Your task to perform on an android device: toggle data saver in the chrome app Image 0: 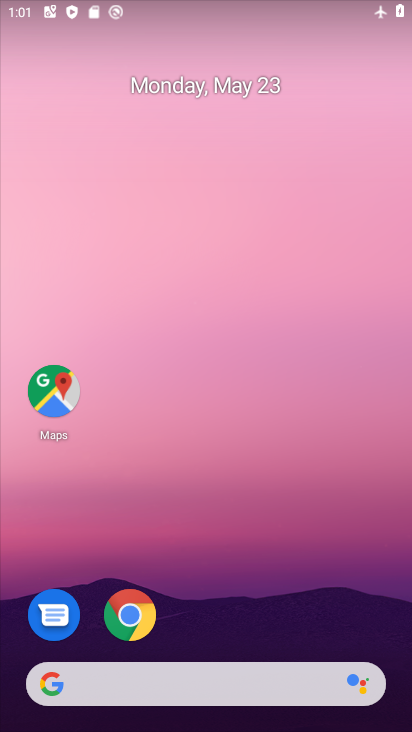
Step 0: click (126, 613)
Your task to perform on an android device: toggle data saver in the chrome app Image 1: 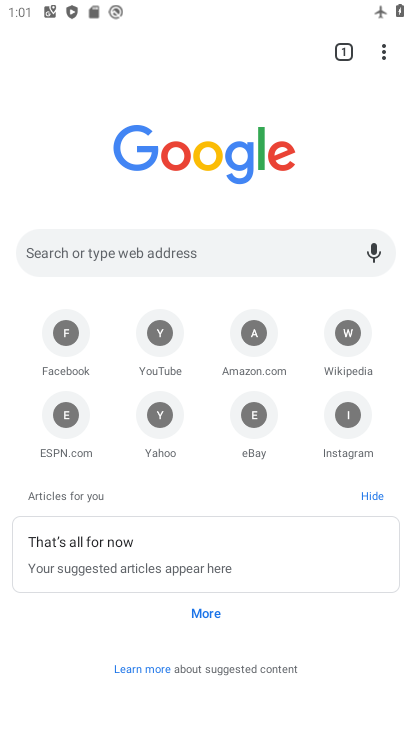
Step 1: click (383, 48)
Your task to perform on an android device: toggle data saver in the chrome app Image 2: 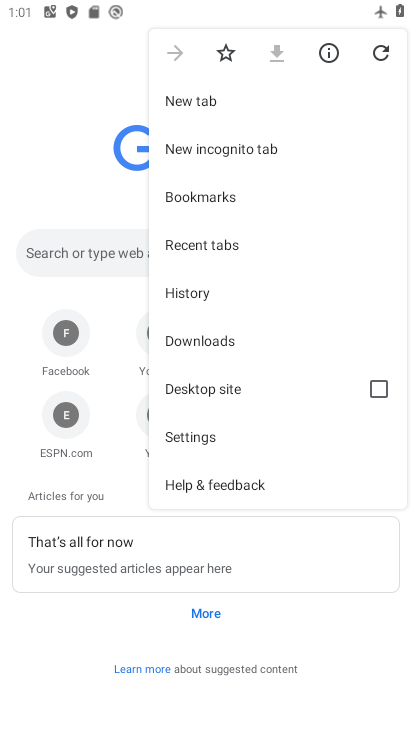
Step 2: click (197, 435)
Your task to perform on an android device: toggle data saver in the chrome app Image 3: 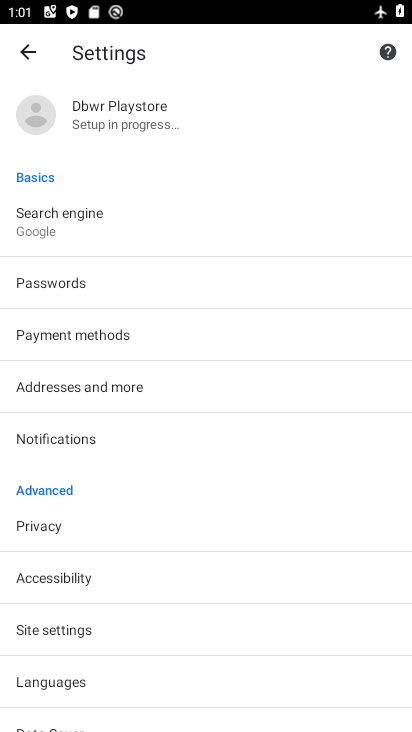
Step 3: drag from (120, 698) to (115, 343)
Your task to perform on an android device: toggle data saver in the chrome app Image 4: 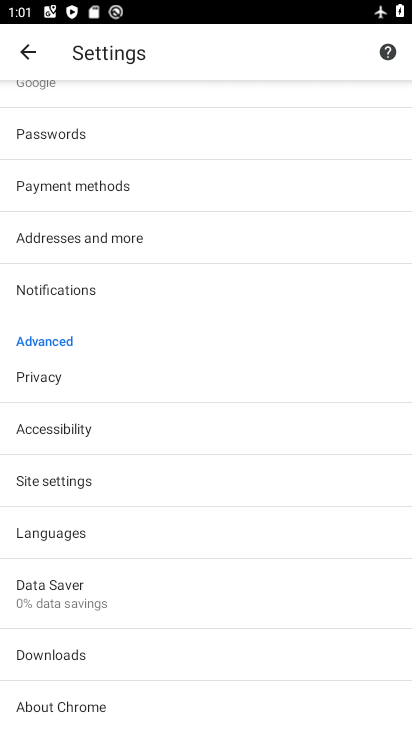
Step 4: click (65, 595)
Your task to perform on an android device: toggle data saver in the chrome app Image 5: 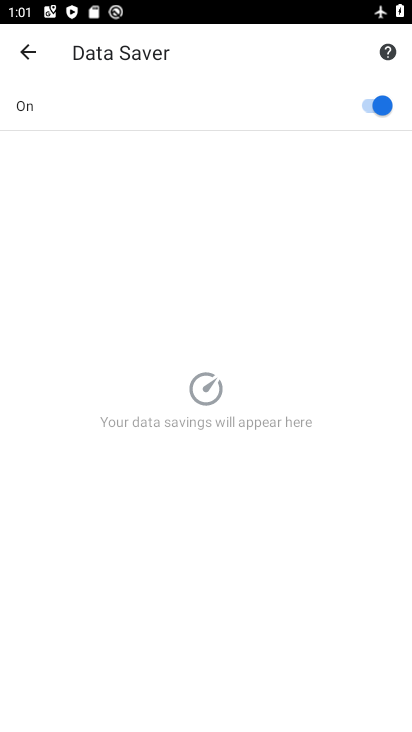
Step 5: click (372, 107)
Your task to perform on an android device: toggle data saver in the chrome app Image 6: 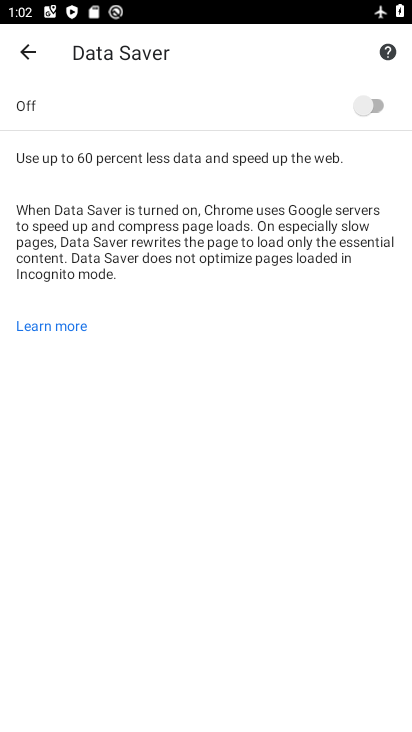
Step 6: click (374, 106)
Your task to perform on an android device: toggle data saver in the chrome app Image 7: 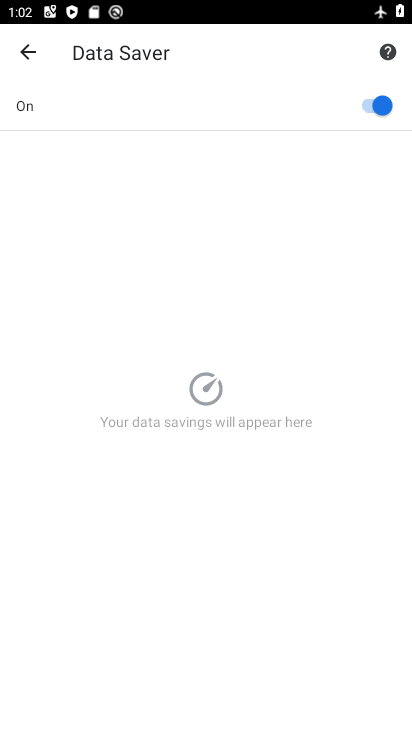
Step 7: task complete